Your task to perform on an android device: open app "Facebook Lite" (install if not already installed) Image 0: 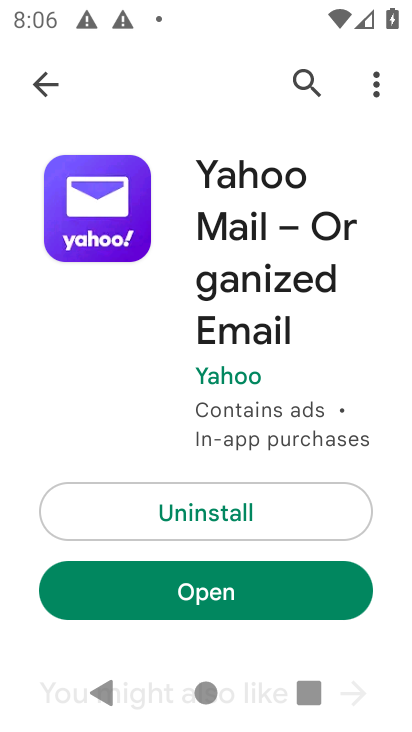
Step 0: click (292, 75)
Your task to perform on an android device: open app "Facebook Lite" (install if not already installed) Image 1: 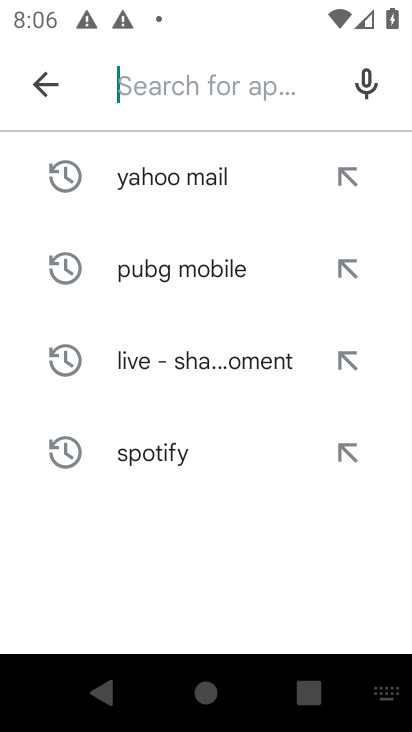
Step 1: type "Facebook Lite"
Your task to perform on an android device: open app "Facebook Lite" (install if not already installed) Image 2: 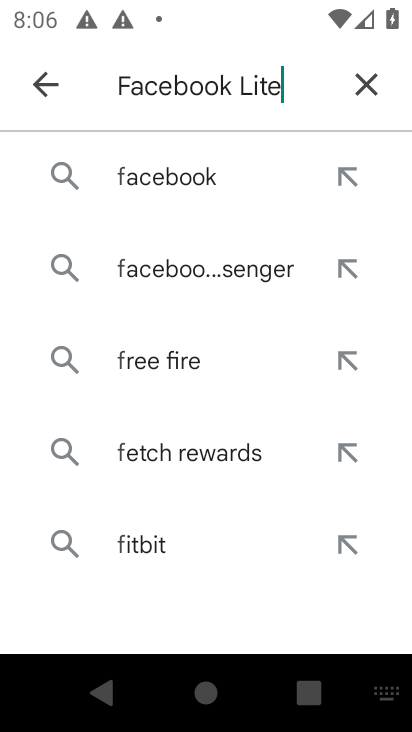
Step 2: type ""
Your task to perform on an android device: open app "Facebook Lite" (install if not already installed) Image 3: 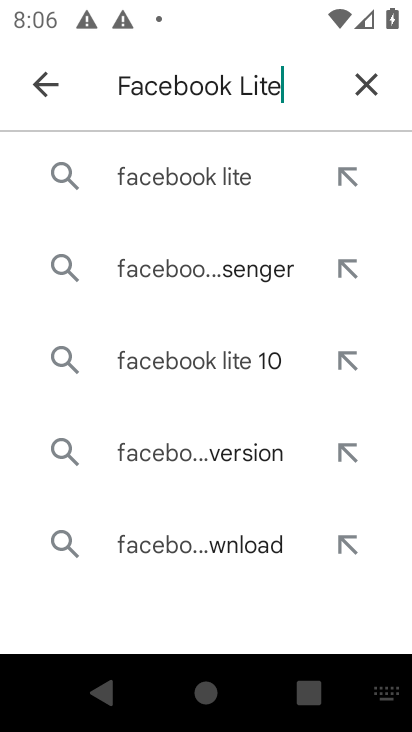
Step 3: click (218, 174)
Your task to perform on an android device: open app "Facebook Lite" (install if not already installed) Image 4: 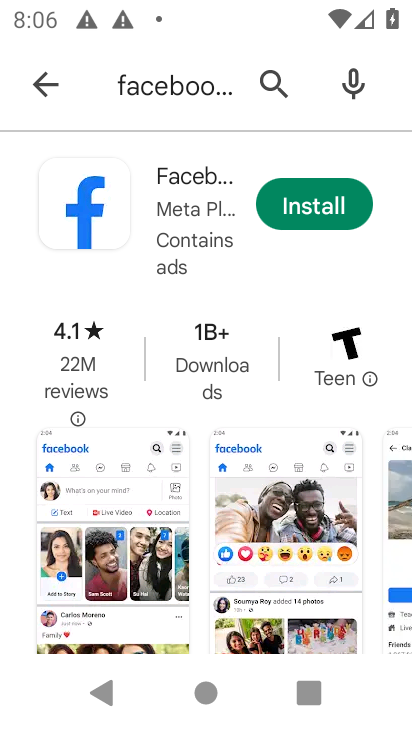
Step 4: click (162, 181)
Your task to perform on an android device: open app "Facebook Lite" (install if not already installed) Image 5: 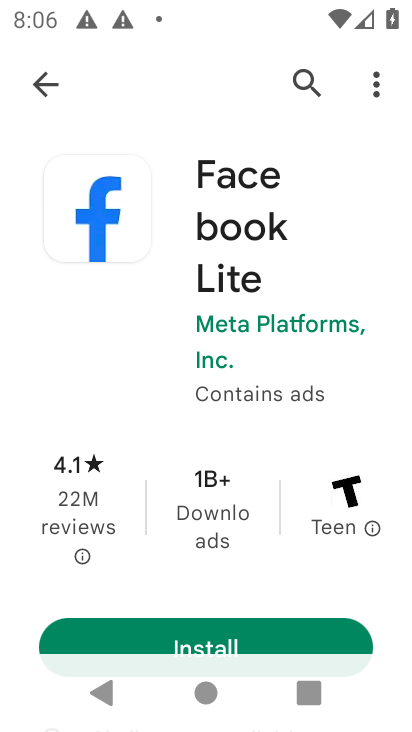
Step 5: drag from (253, 469) to (355, 222)
Your task to perform on an android device: open app "Facebook Lite" (install if not already installed) Image 6: 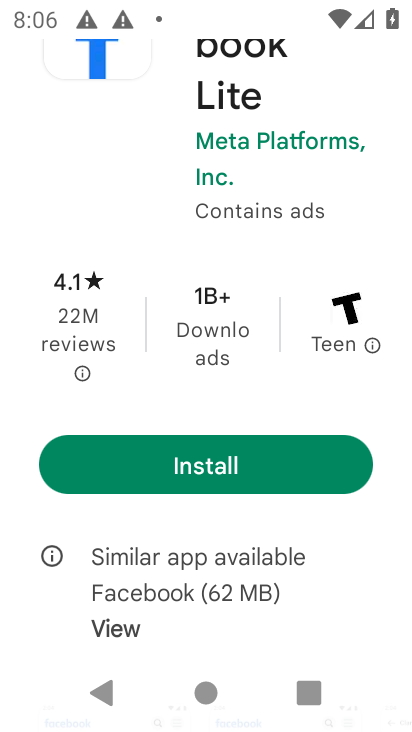
Step 6: drag from (247, 177) to (250, 568)
Your task to perform on an android device: open app "Facebook Lite" (install if not already installed) Image 7: 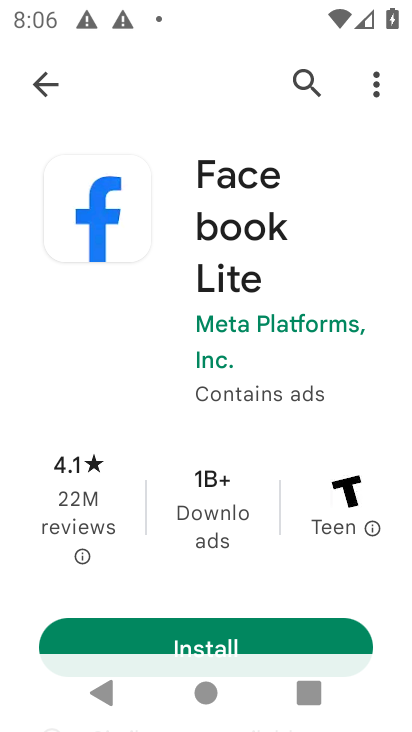
Step 7: drag from (235, 548) to (287, 371)
Your task to perform on an android device: open app "Facebook Lite" (install if not already installed) Image 8: 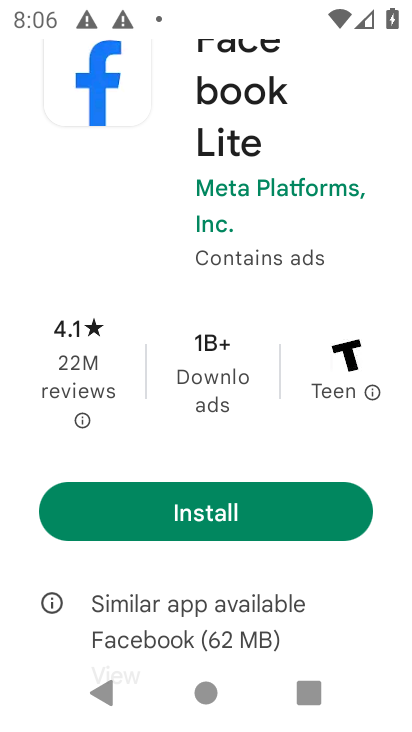
Step 8: click (196, 510)
Your task to perform on an android device: open app "Facebook Lite" (install if not already installed) Image 9: 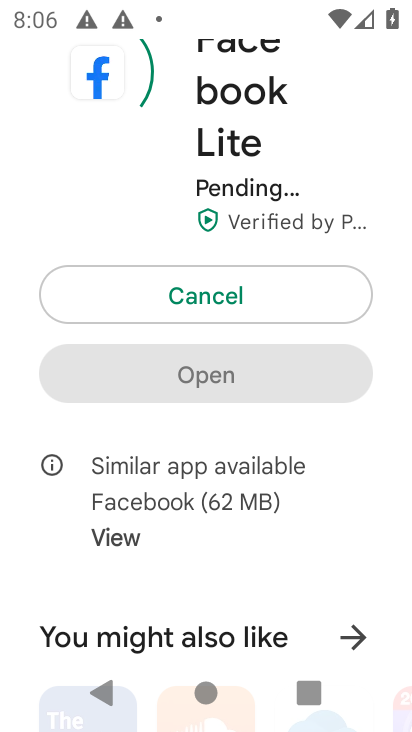
Step 9: drag from (271, 160) to (231, 527)
Your task to perform on an android device: open app "Facebook Lite" (install if not already installed) Image 10: 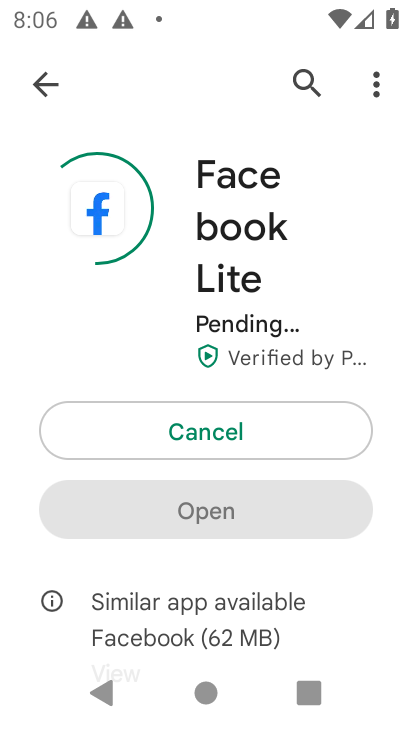
Step 10: drag from (257, 293) to (337, 565)
Your task to perform on an android device: open app "Facebook Lite" (install if not already installed) Image 11: 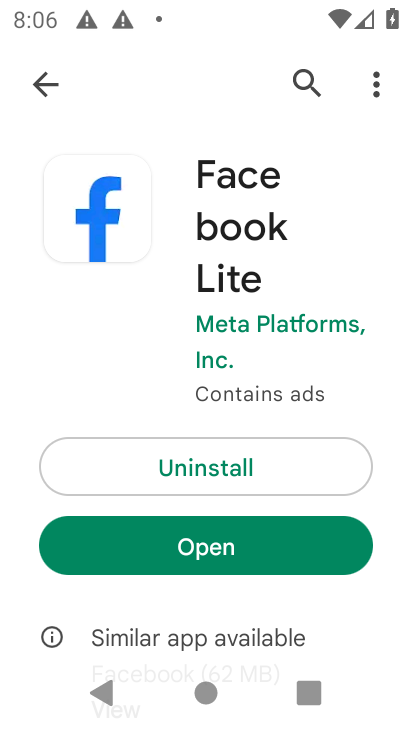
Step 11: click (189, 548)
Your task to perform on an android device: open app "Facebook Lite" (install if not already installed) Image 12: 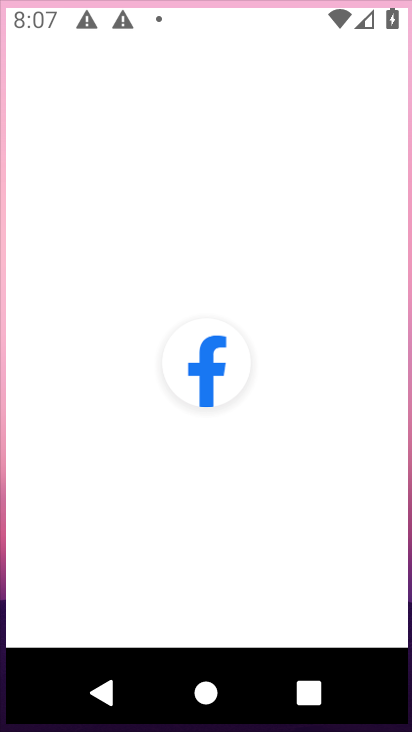
Step 12: task complete